Your task to perform on an android device: Search for pizza restaurants on Maps Image 0: 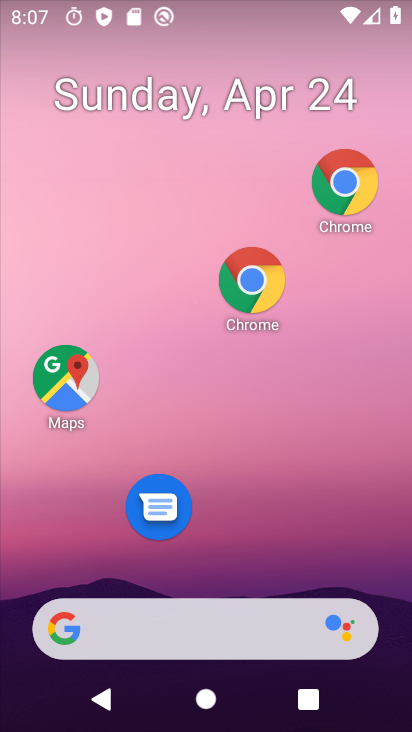
Step 0: drag from (269, 710) to (143, 136)
Your task to perform on an android device: Search for pizza restaurants on Maps Image 1: 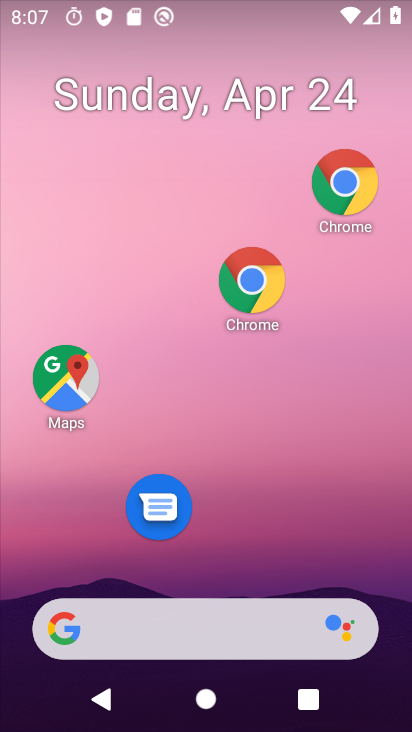
Step 1: click (62, 361)
Your task to perform on an android device: Search for pizza restaurants on Maps Image 2: 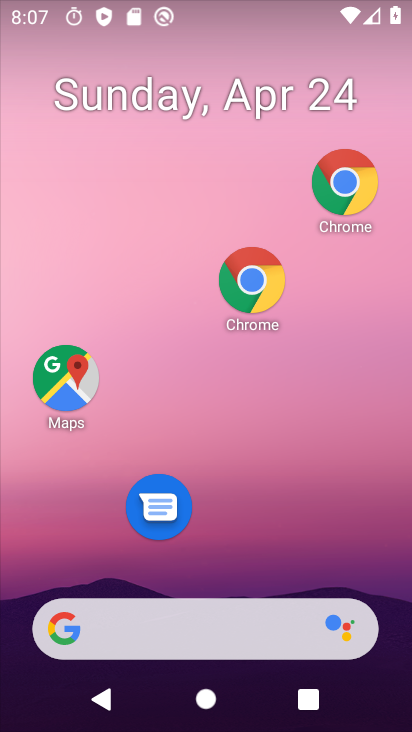
Step 2: click (64, 355)
Your task to perform on an android device: Search for pizza restaurants on Maps Image 3: 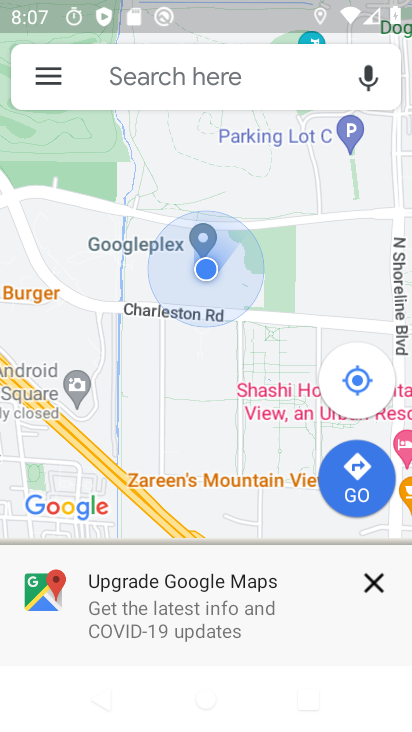
Step 3: click (111, 82)
Your task to perform on an android device: Search for pizza restaurants on Maps Image 4: 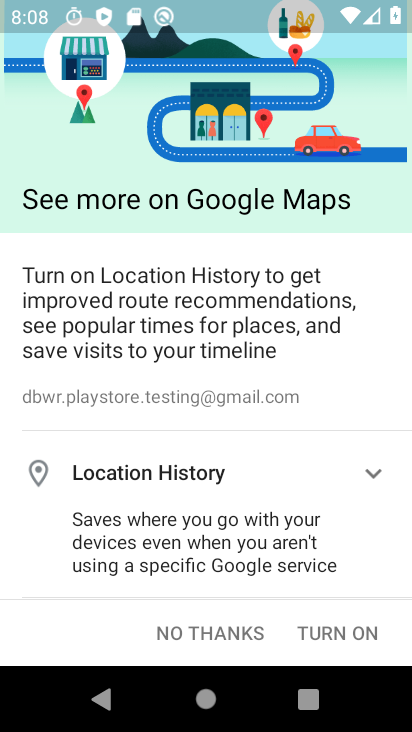
Step 4: click (209, 627)
Your task to perform on an android device: Search for pizza restaurants on Maps Image 5: 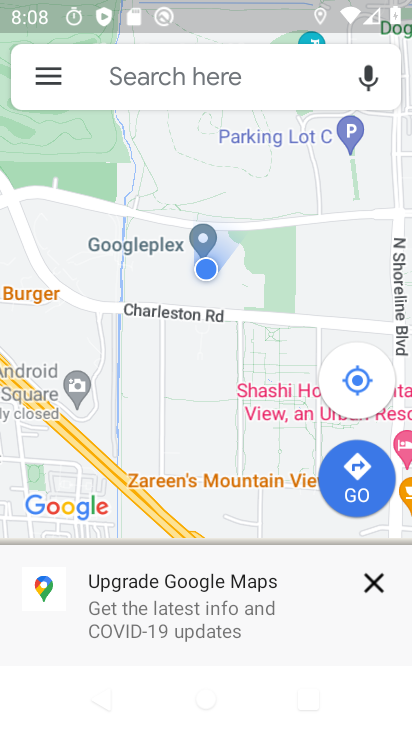
Step 5: click (114, 80)
Your task to perform on an android device: Search for pizza restaurants on Maps Image 6: 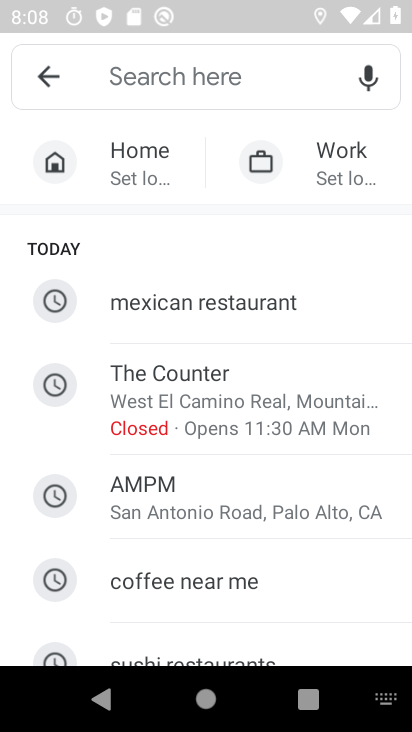
Step 6: type "pizza restaurants"
Your task to perform on an android device: Search for pizza restaurants on Maps Image 7: 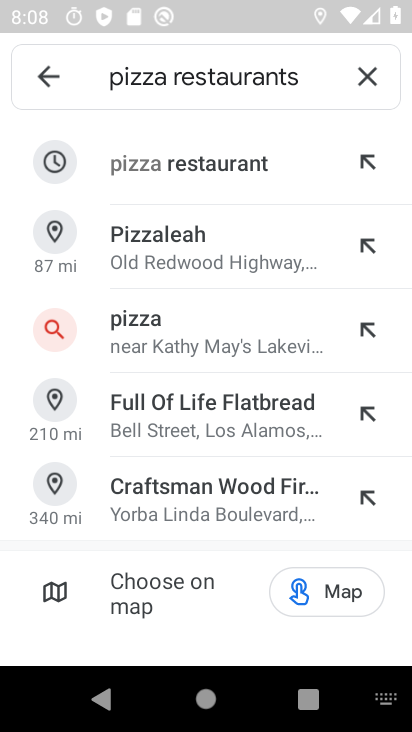
Step 7: click (234, 152)
Your task to perform on an android device: Search for pizza restaurants on Maps Image 8: 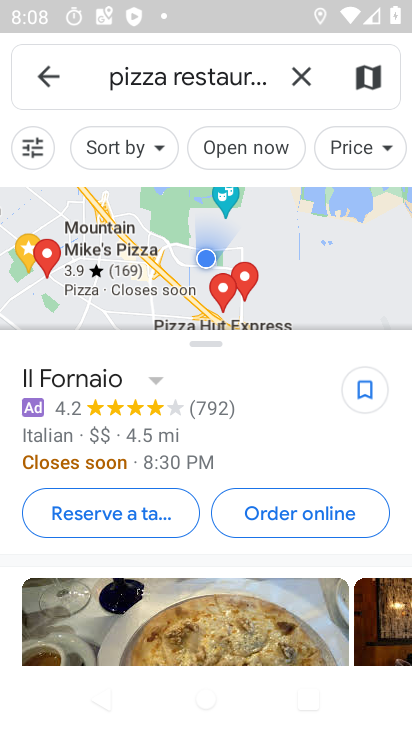
Step 8: task complete